Your task to perform on an android device: Open Google Image 0: 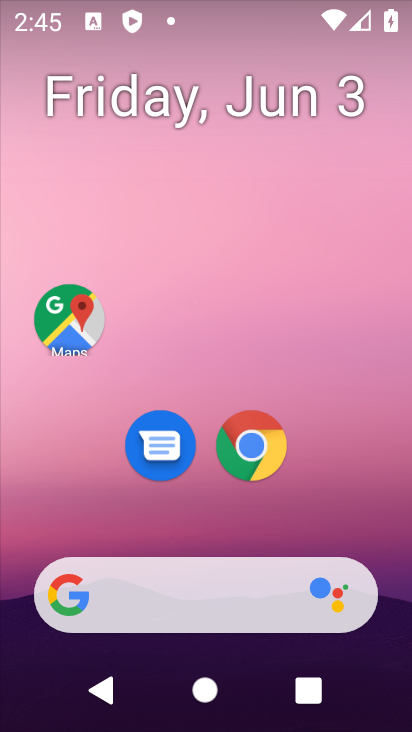
Step 0: click (174, 608)
Your task to perform on an android device: Open Google Image 1: 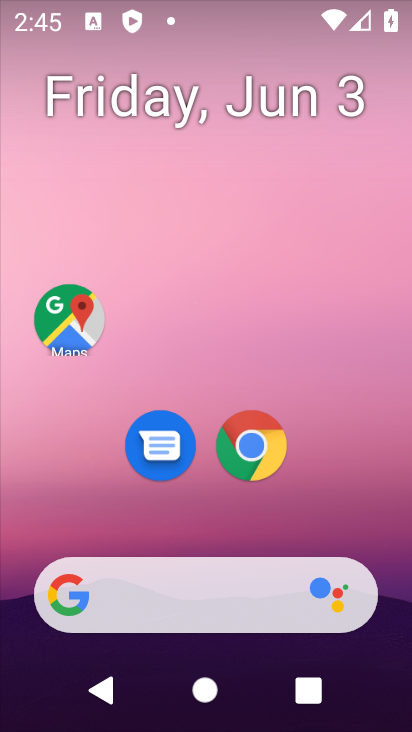
Step 1: click (225, 585)
Your task to perform on an android device: Open Google Image 2: 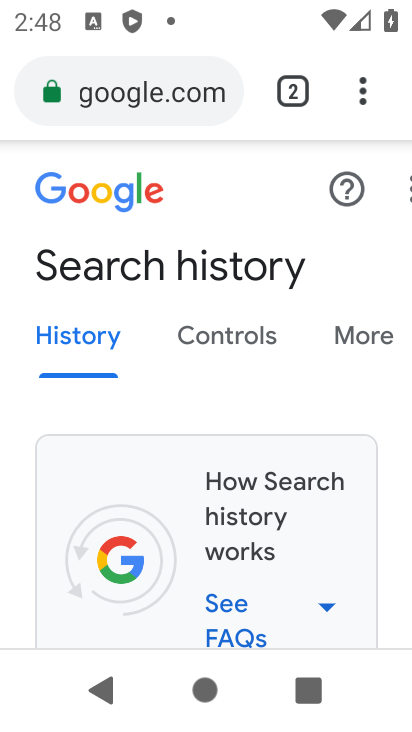
Step 2: task complete